Your task to perform on an android device: Search for a new phone on Amazon. Image 0: 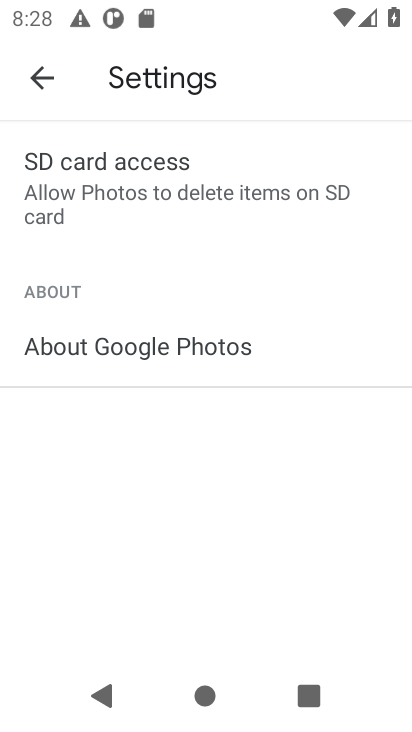
Step 0: click (63, 213)
Your task to perform on an android device: Search for a new phone on Amazon. Image 1: 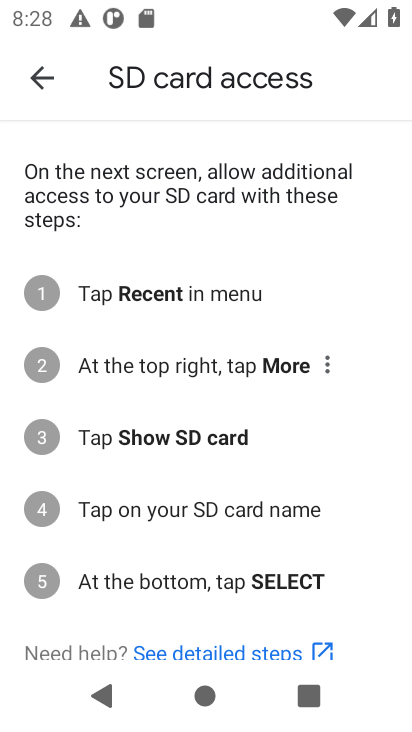
Step 1: task complete